Your task to perform on an android device: turn off javascript in the chrome app Image 0: 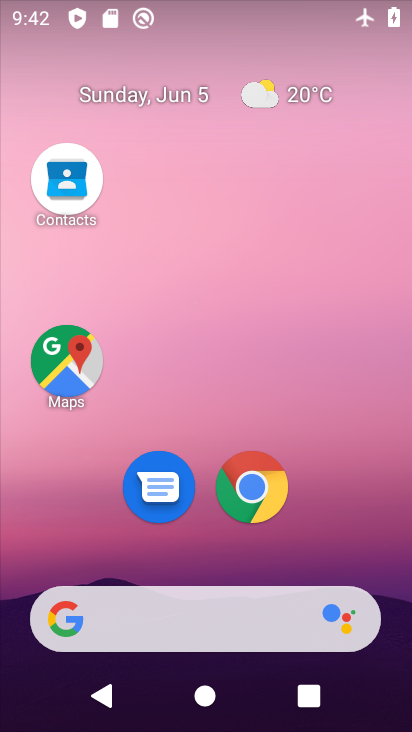
Step 0: drag from (219, 652) to (210, 66)
Your task to perform on an android device: turn off javascript in the chrome app Image 1: 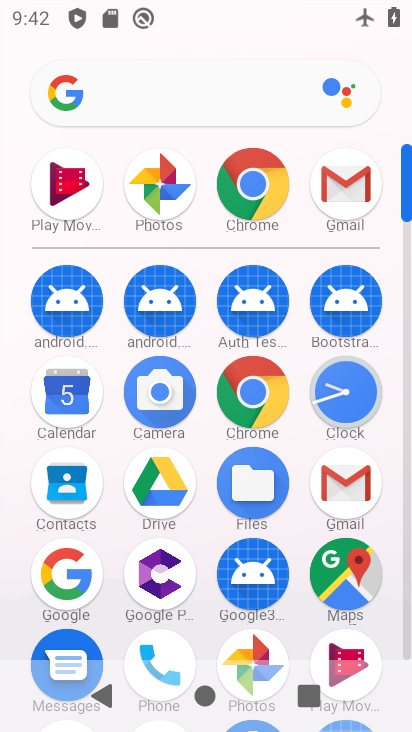
Step 1: click (239, 189)
Your task to perform on an android device: turn off javascript in the chrome app Image 2: 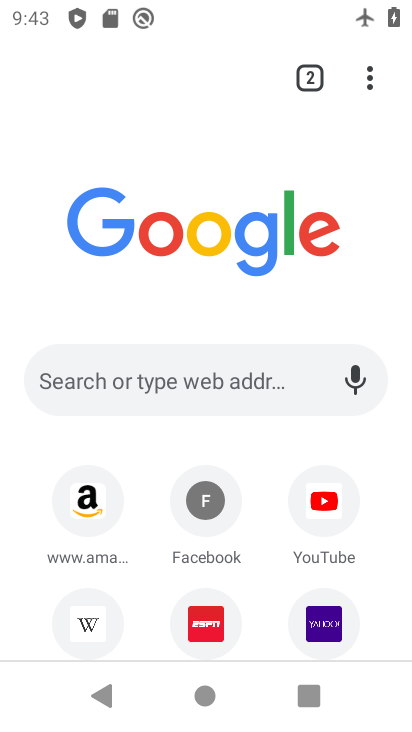
Step 2: click (370, 68)
Your task to perform on an android device: turn off javascript in the chrome app Image 3: 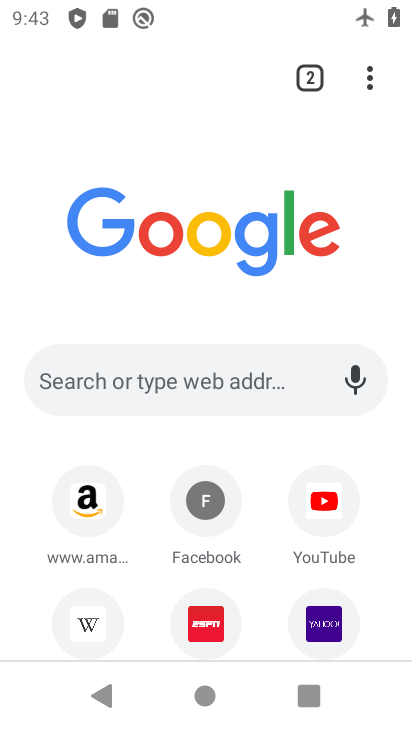
Step 3: click (373, 80)
Your task to perform on an android device: turn off javascript in the chrome app Image 4: 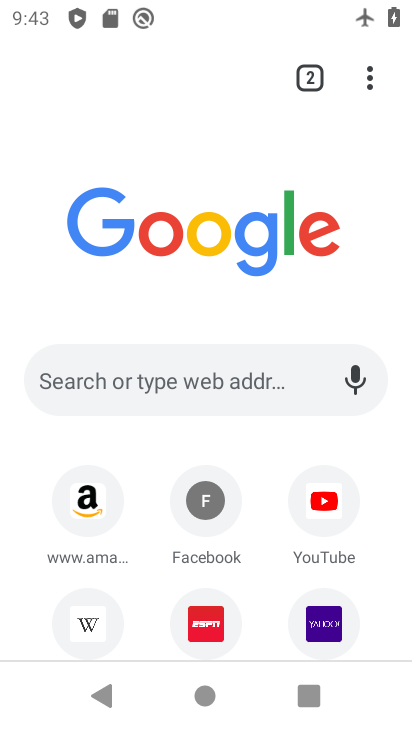
Step 4: click (378, 76)
Your task to perform on an android device: turn off javascript in the chrome app Image 5: 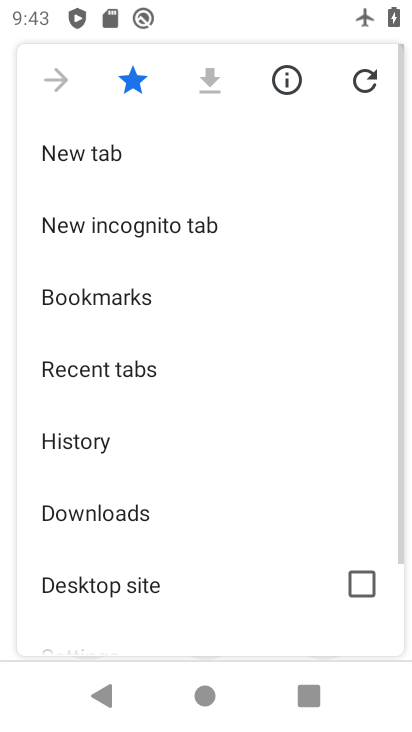
Step 5: drag from (149, 464) to (136, 149)
Your task to perform on an android device: turn off javascript in the chrome app Image 6: 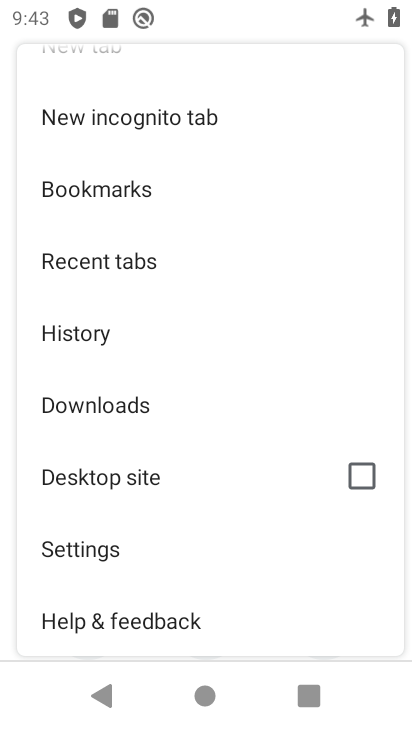
Step 6: click (97, 544)
Your task to perform on an android device: turn off javascript in the chrome app Image 7: 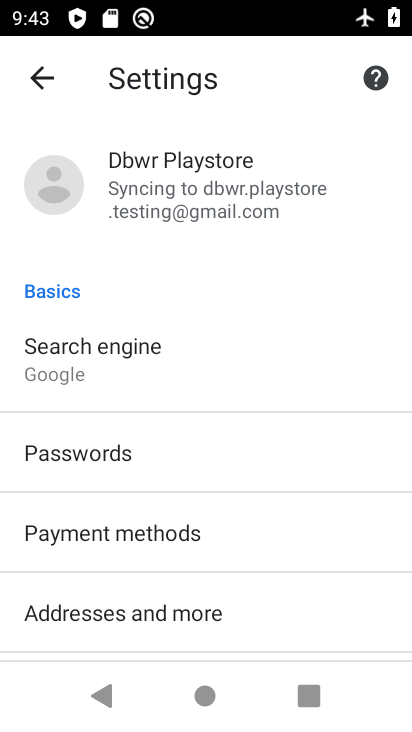
Step 7: drag from (153, 512) to (143, 149)
Your task to perform on an android device: turn off javascript in the chrome app Image 8: 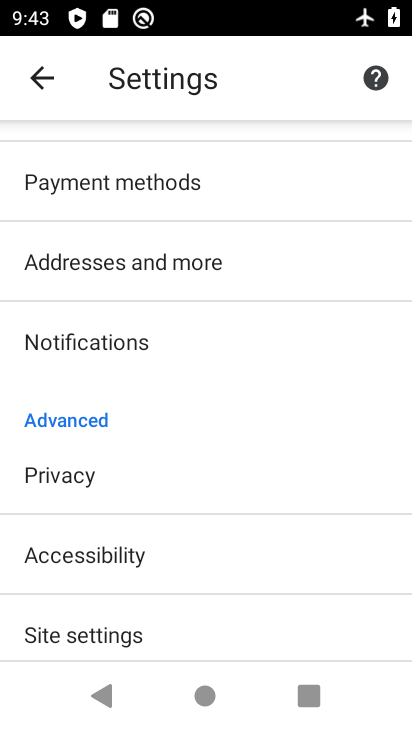
Step 8: click (132, 622)
Your task to perform on an android device: turn off javascript in the chrome app Image 9: 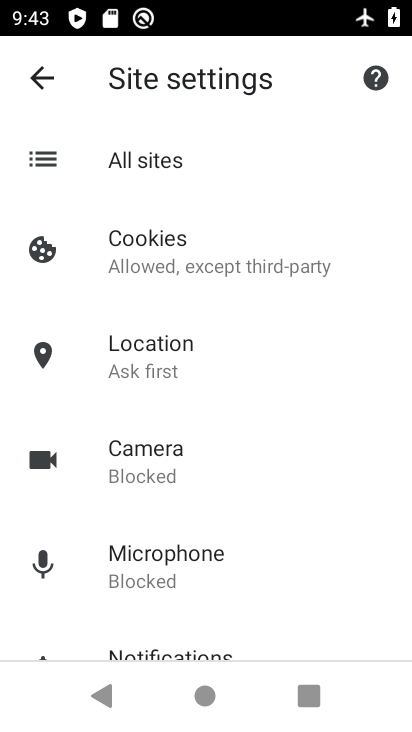
Step 9: drag from (216, 533) to (216, 259)
Your task to perform on an android device: turn off javascript in the chrome app Image 10: 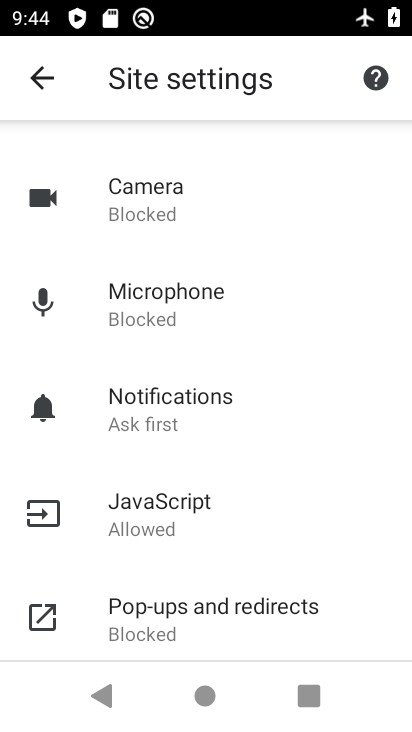
Step 10: drag from (190, 539) to (187, 229)
Your task to perform on an android device: turn off javascript in the chrome app Image 11: 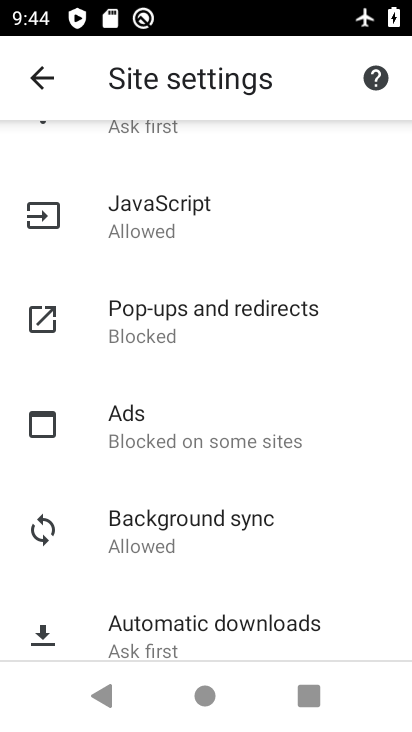
Step 11: click (232, 218)
Your task to perform on an android device: turn off javascript in the chrome app Image 12: 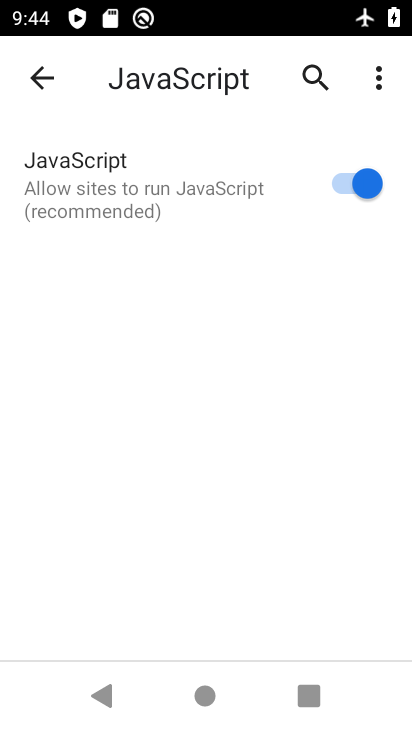
Step 12: click (336, 173)
Your task to perform on an android device: turn off javascript in the chrome app Image 13: 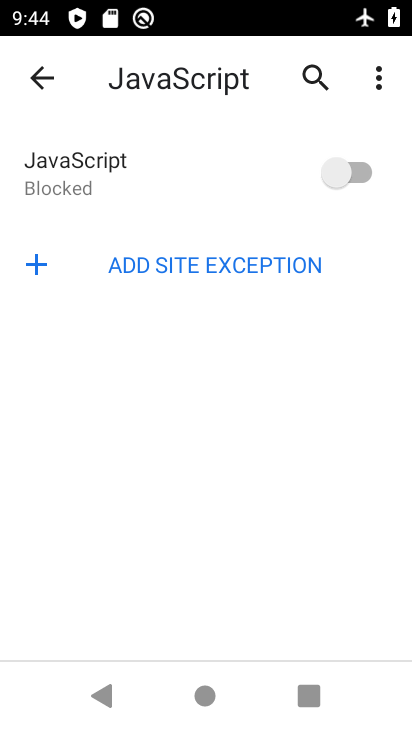
Step 13: task complete